Your task to perform on an android device: Open Amazon Image 0: 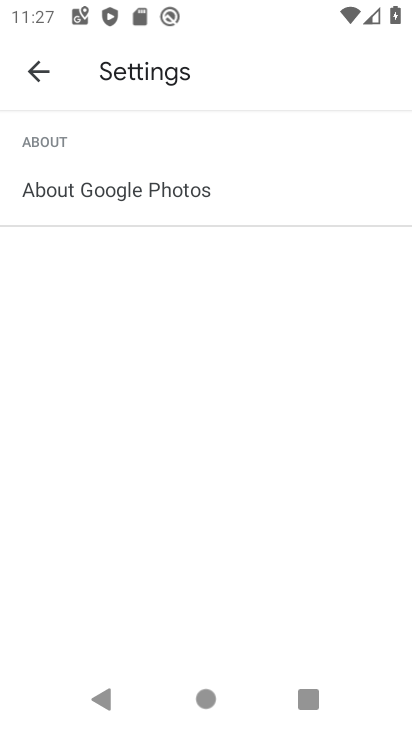
Step 0: press home button
Your task to perform on an android device: Open Amazon Image 1: 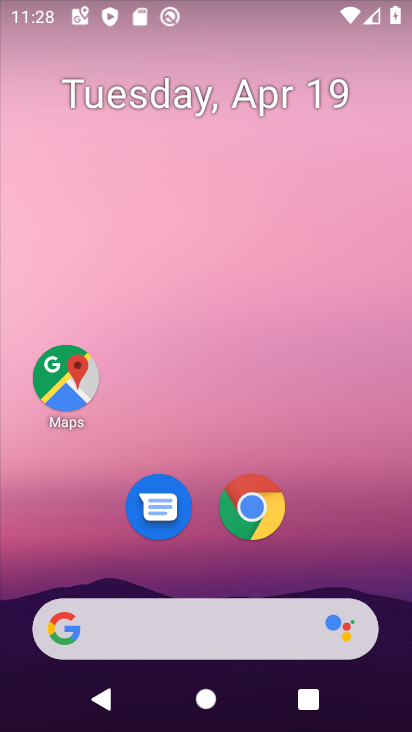
Step 1: drag from (369, 536) to (314, 55)
Your task to perform on an android device: Open Amazon Image 2: 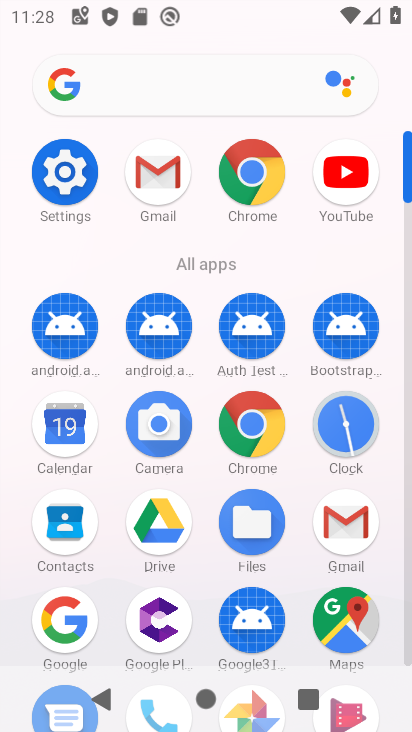
Step 2: click (241, 163)
Your task to perform on an android device: Open Amazon Image 3: 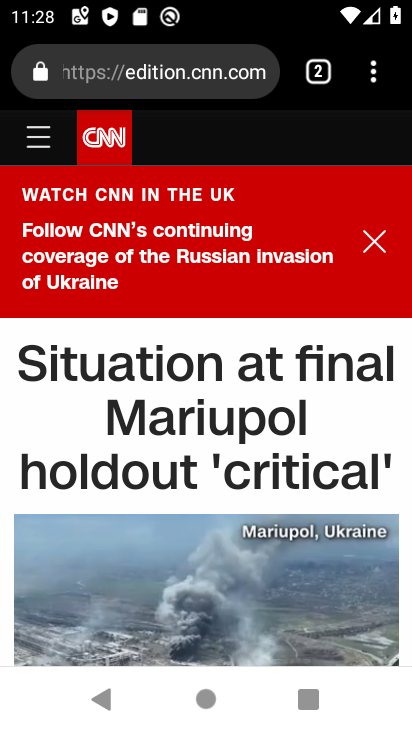
Step 3: click (313, 74)
Your task to perform on an android device: Open Amazon Image 4: 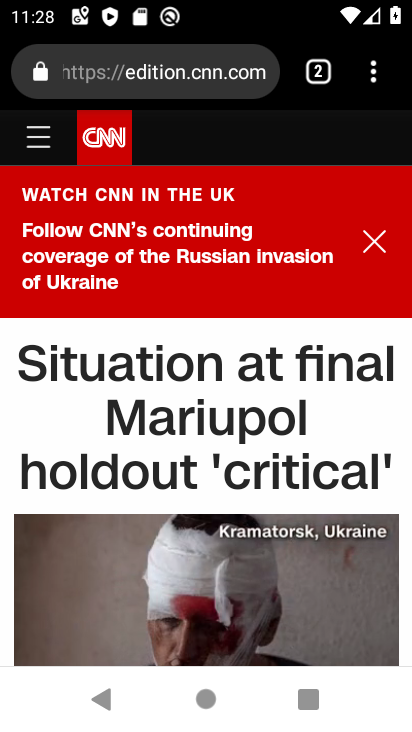
Step 4: click (312, 73)
Your task to perform on an android device: Open Amazon Image 5: 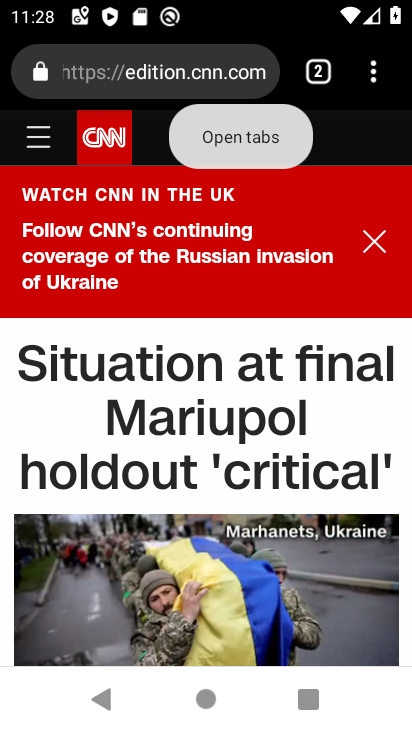
Step 5: click (312, 74)
Your task to perform on an android device: Open Amazon Image 6: 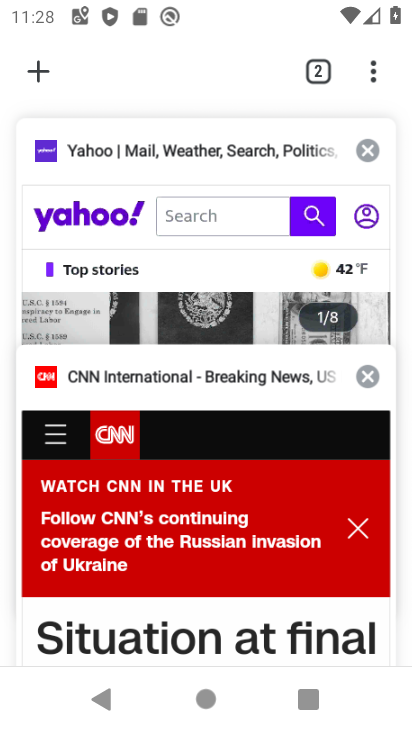
Step 6: click (43, 70)
Your task to perform on an android device: Open Amazon Image 7: 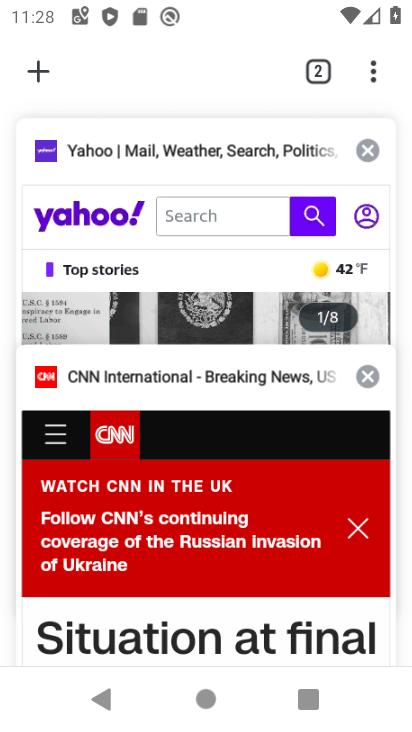
Step 7: click (40, 73)
Your task to perform on an android device: Open Amazon Image 8: 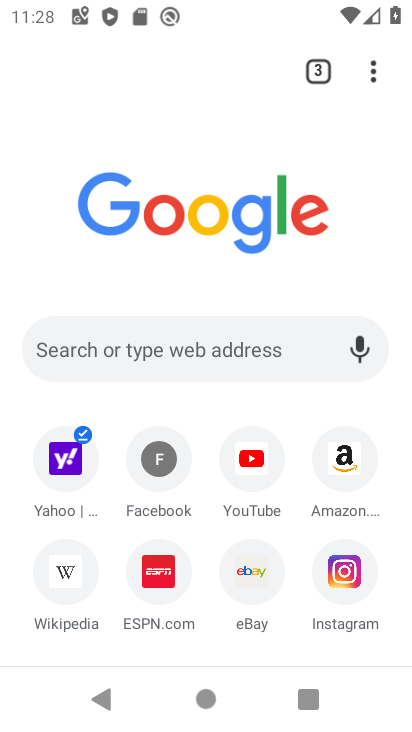
Step 8: click (178, 361)
Your task to perform on an android device: Open Amazon Image 9: 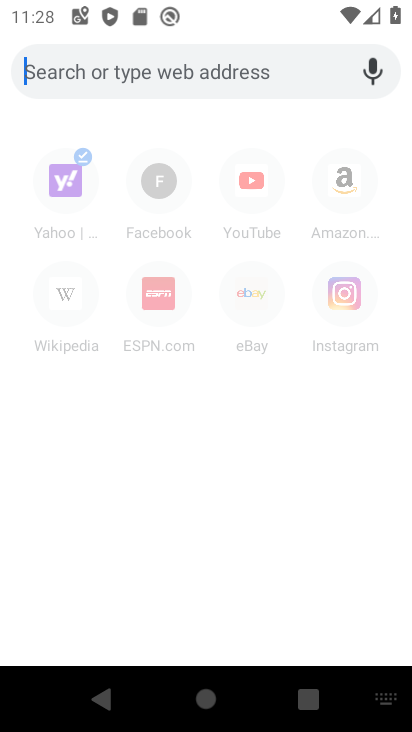
Step 9: click (351, 188)
Your task to perform on an android device: Open Amazon Image 10: 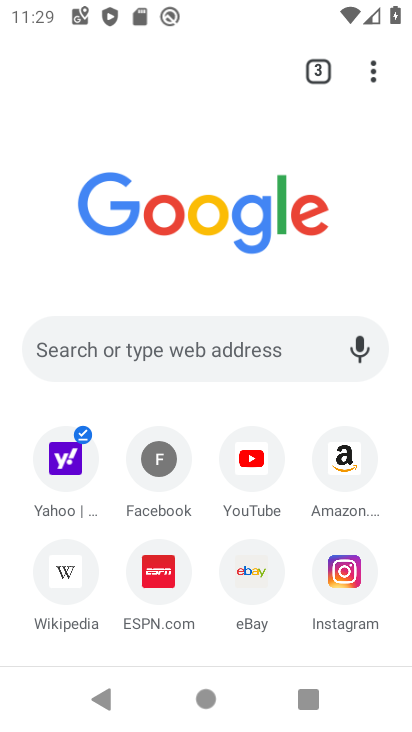
Step 10: click (347, 472)
Your task to perform on an android device: Open Amazon Image 11: 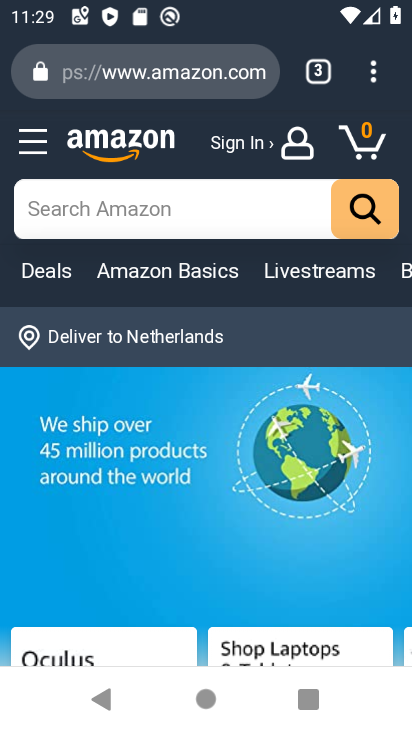
Step 11: task complete